Your task to perform on an android device: check storage Image 0: 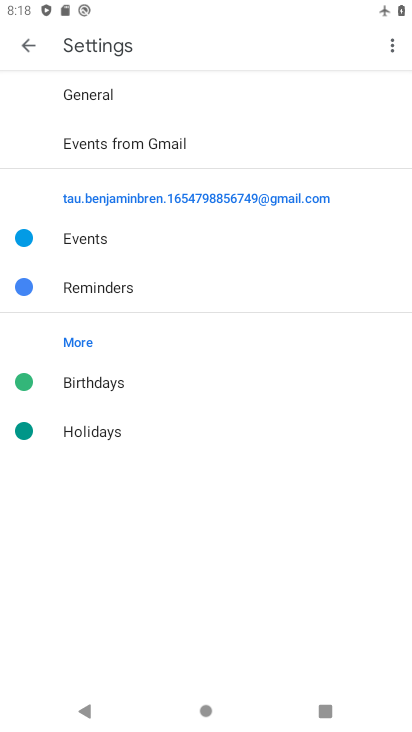
Step 0: press home button
Your task to perform on an android device: check storage Image 1: 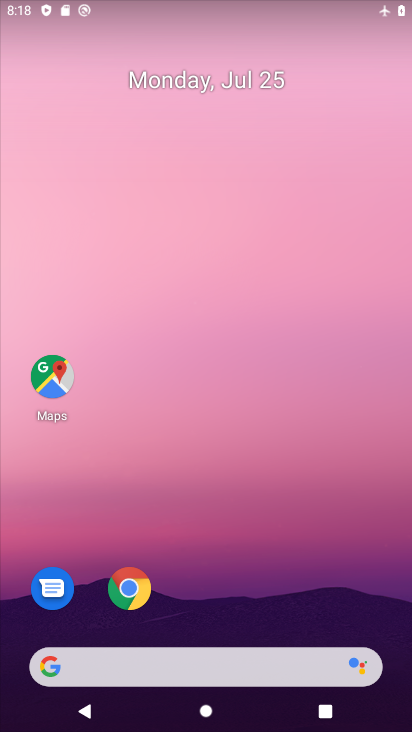
Step 1: drag from (201, 646) to (202, 137)
Your task to perform on an android device: check storage Image 2: 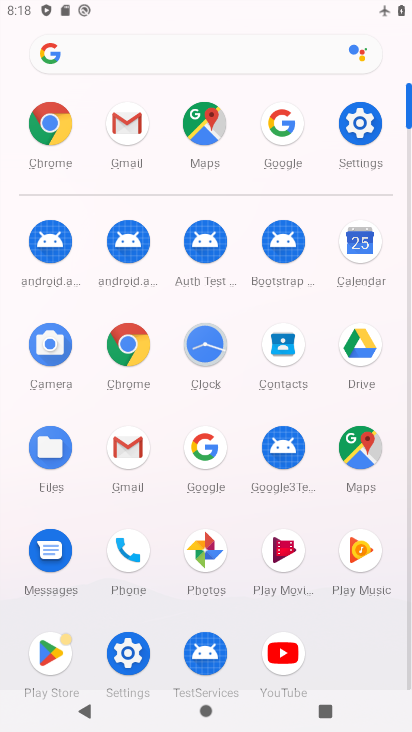
Step 2: click (350, 131)
Your task to perform on an android device: check storage Image 3: 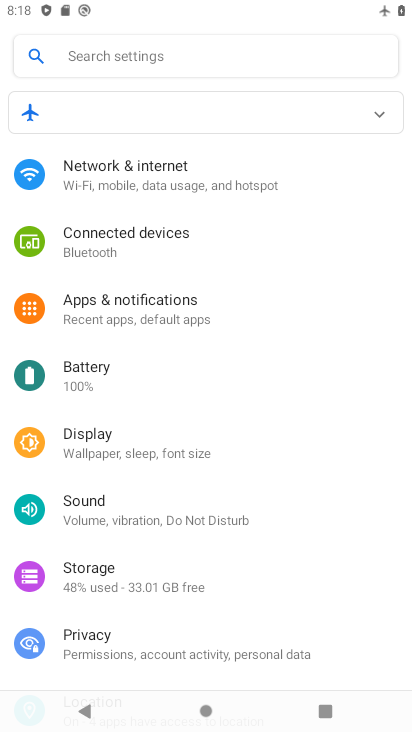
Step 3: click (84, 577)
Your task to perform on an android device: check storage Image 4: 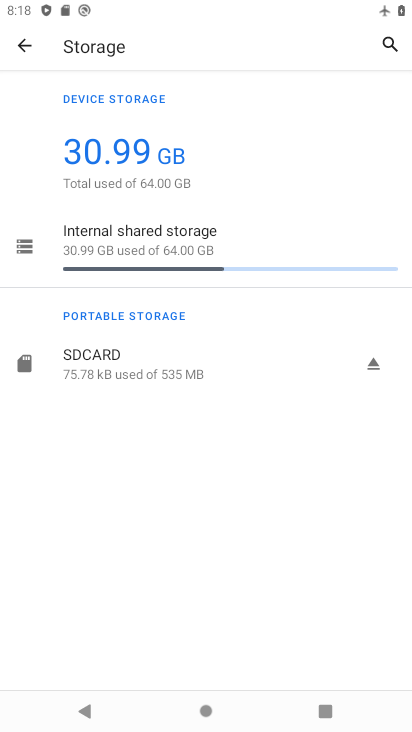
Step 4: task complete